Your task to perform on an android device: Go to privacy settings Image 0: 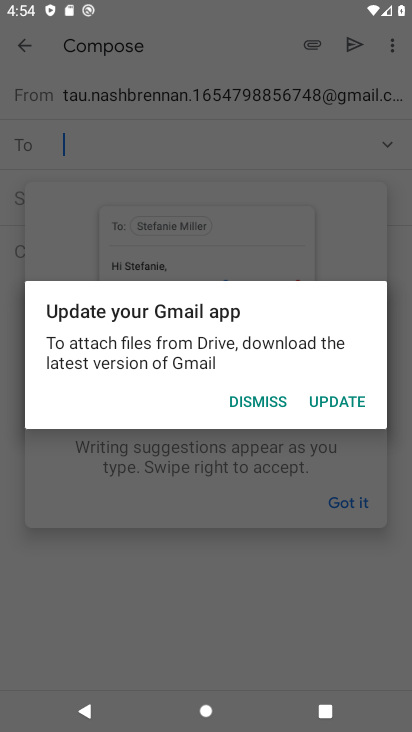
Step 0: press home button
Your task to perform on an android device: Go to privacy settings Image 1: 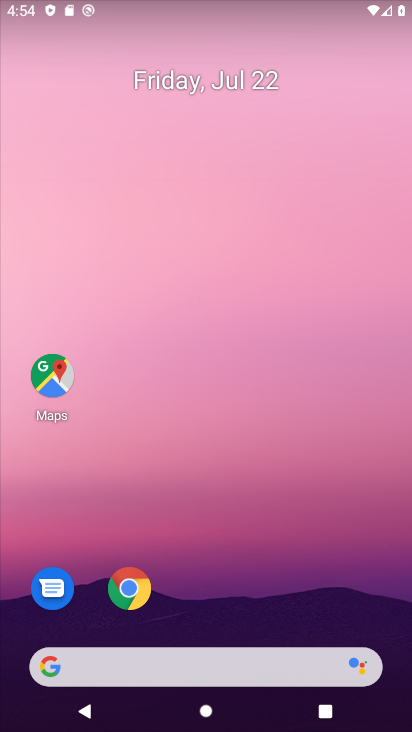
Step 1: drag from (274, 542) to (342, 153)
Your task to perform on an android device: Go to privacy settings Image 2: 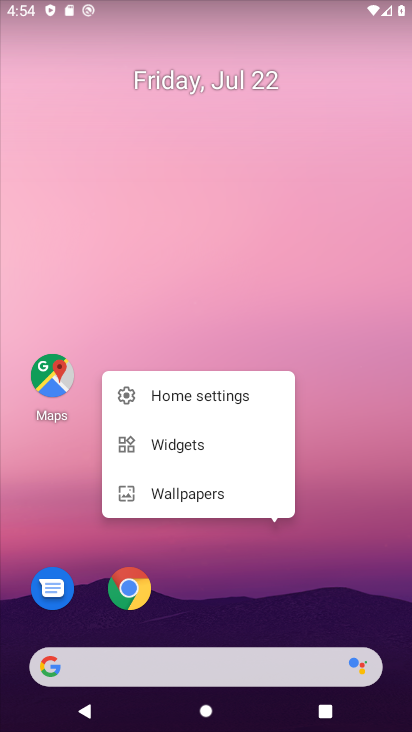
Step 2: click (332, 451)
Your task to perform on an android device: Go to privacy settings Image 3: 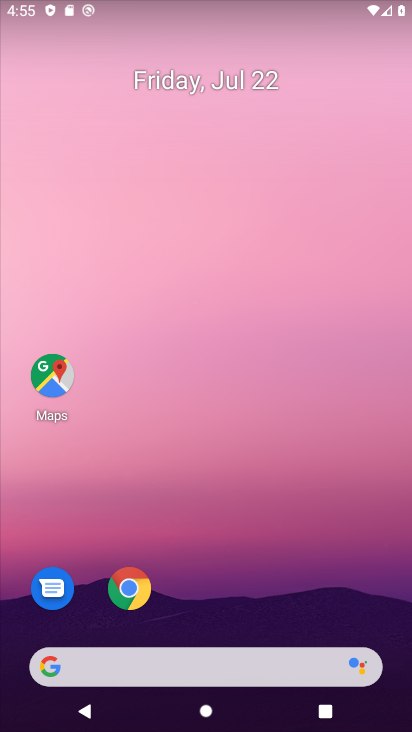
Step 3: drag from (320, 496) to (309, 147)
Your task to perform on an android device: Go to privacy settings Image 4: 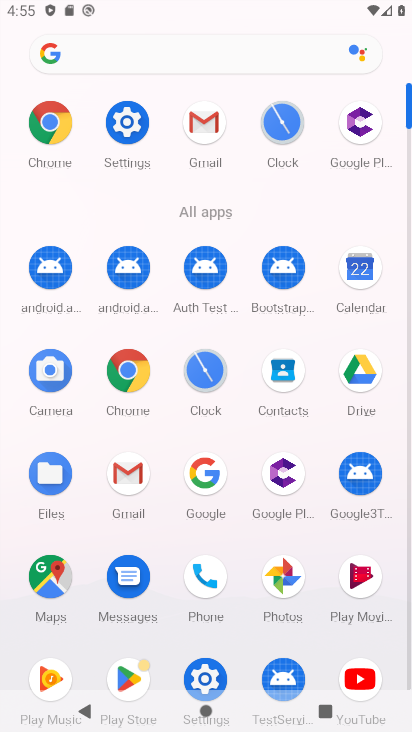
Step 4: click (204, 675)
Your task to perform on an android device: Go to privacy settings Image 5: 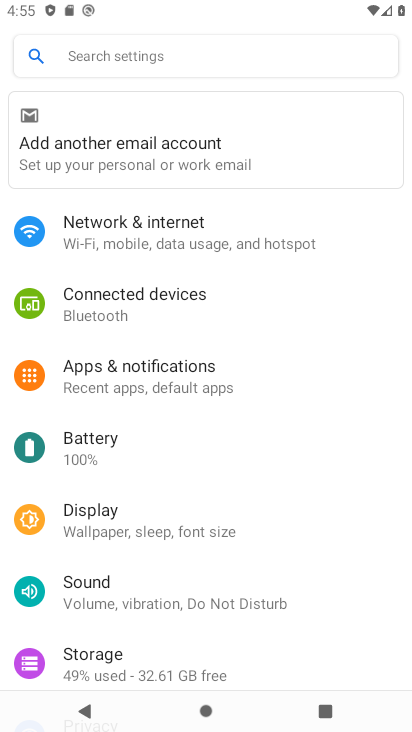
Step 5: drag from (188, 562) to (172, 406)
Your task to perform on an android device: Go to privacy settings Image 6: 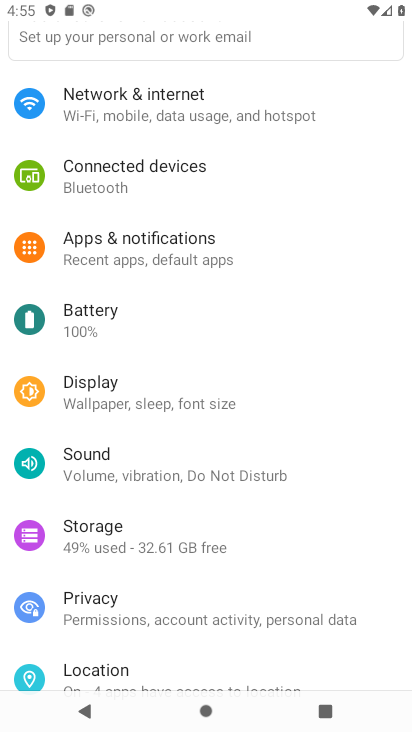
Step 6: click (138, 610)
Your task to perform on an android device: Go to privacy settings Image 7: 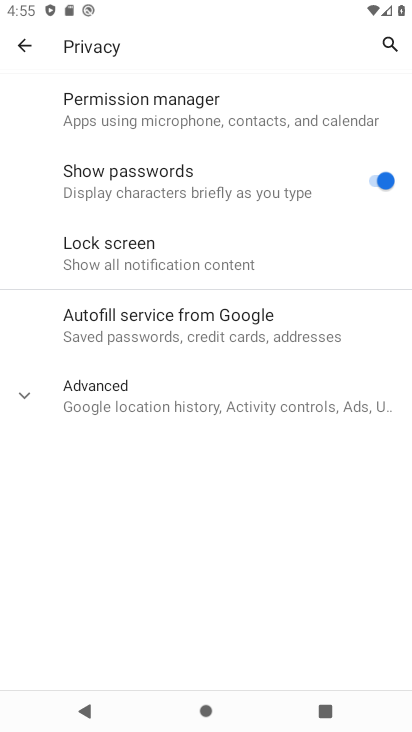
Step 7: task complete